Your task to perform on an android device: Open the web browser Image 0: 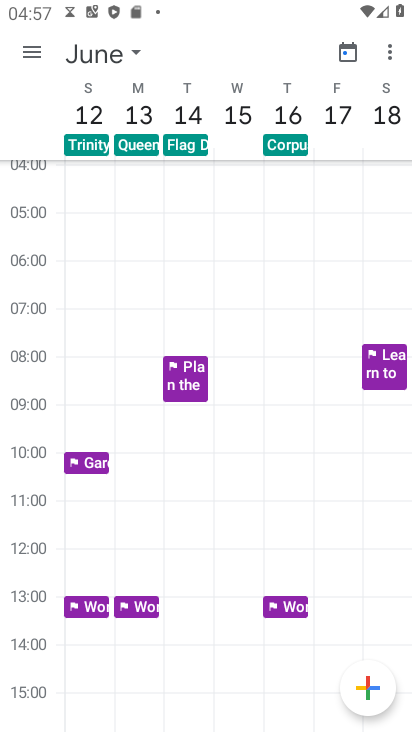
Step 0: press back button
Your task to perform on an android device: Open the web browser Image 1: 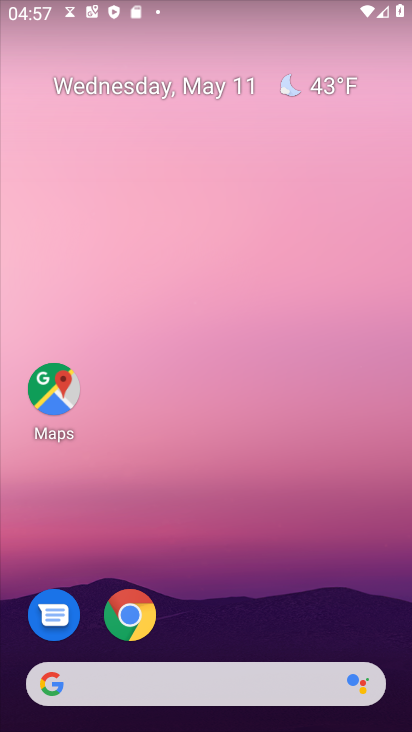
Step 1: drag from (250, 556) to (250, 109)
Your task to perform on an android device: Open the web browser Image 2: 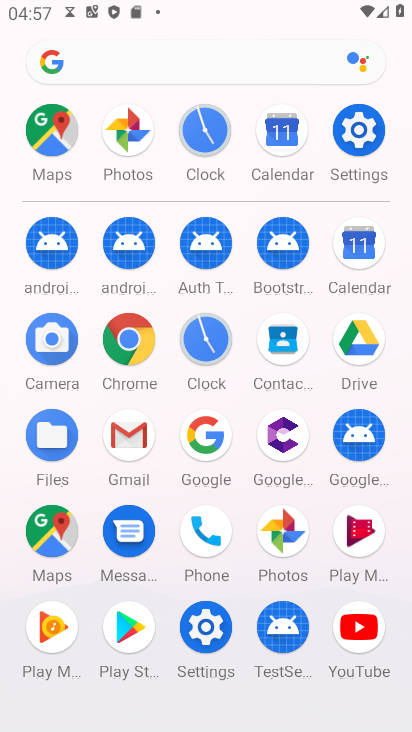
Step 2: click (125, 335)
Your task to perform on an android device: Open the web browser Image 3: 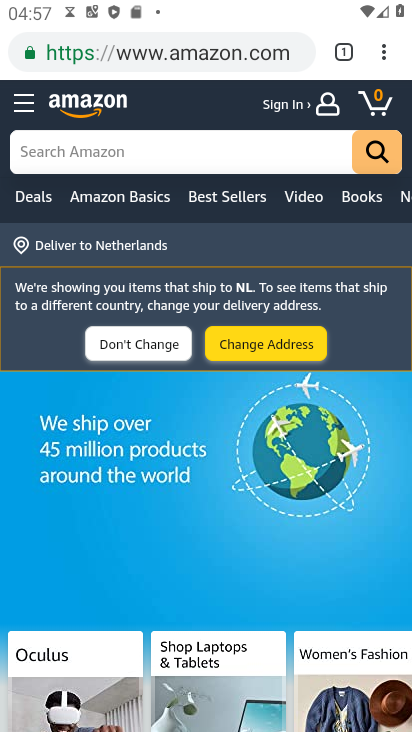
Step 3: click (194, 48)
Your task to perform on an android device: Open the web browser Image 4: 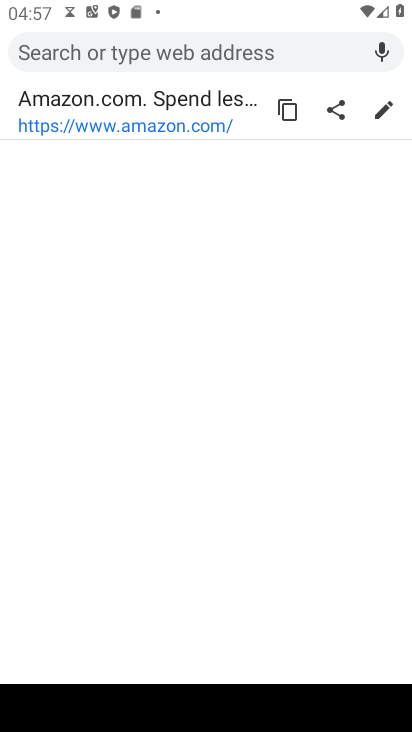
Step 4: task complete